Your task to perform on an android device: turn off translation in the chrome app Image 0: 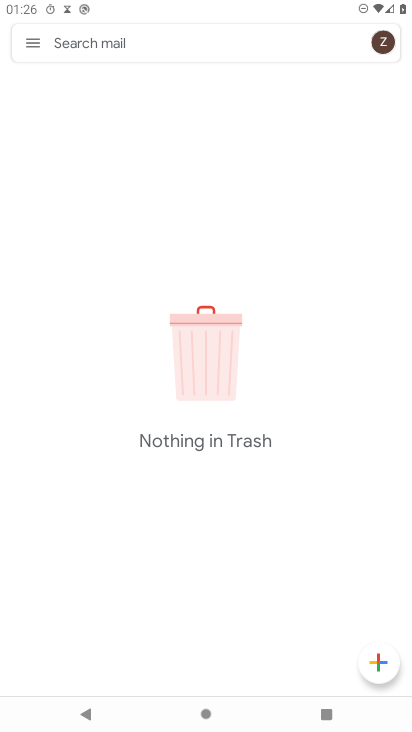
Step 0: press home button
Your task to perform on an android device: turn off translation in the chrome app Image 1: 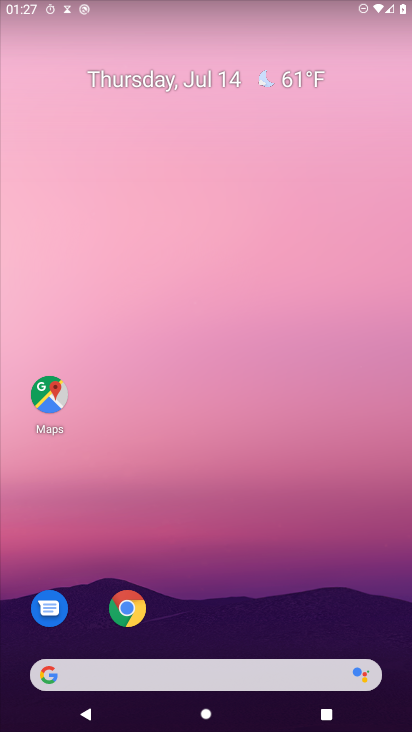
Step 1: click (136, 610)
Your task to perform on an android device: turn off translation in the chrome app Image 2: 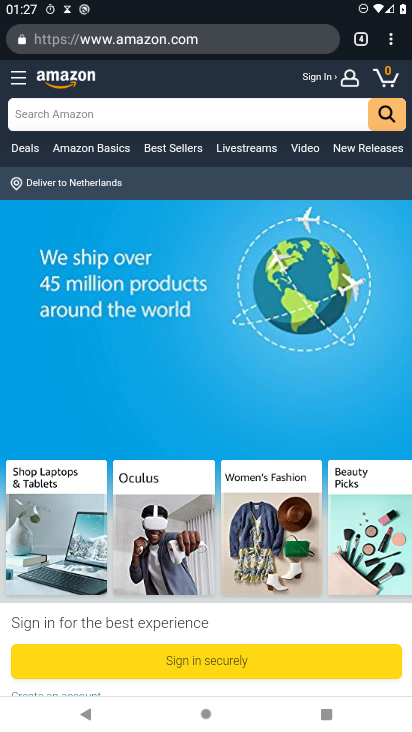
Step 2: click (394, 41)
Your task to perform on an android device: turn off translation in the chrome app Image 3: 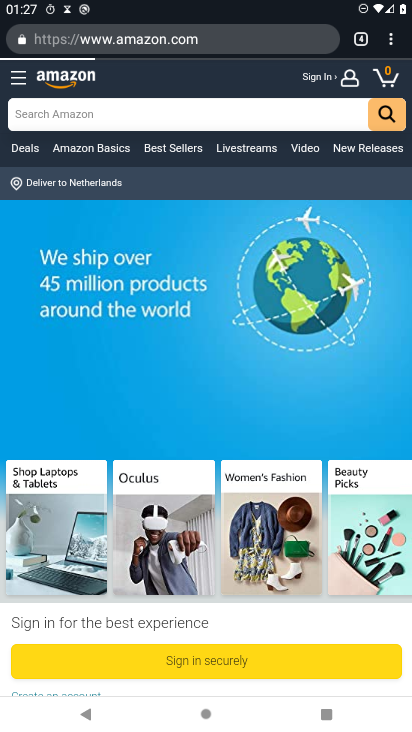
Step 3: drag from (394, 41) to (250, 468)
Your task to perform on an android device: turn off translation in the chrome app Image 4: 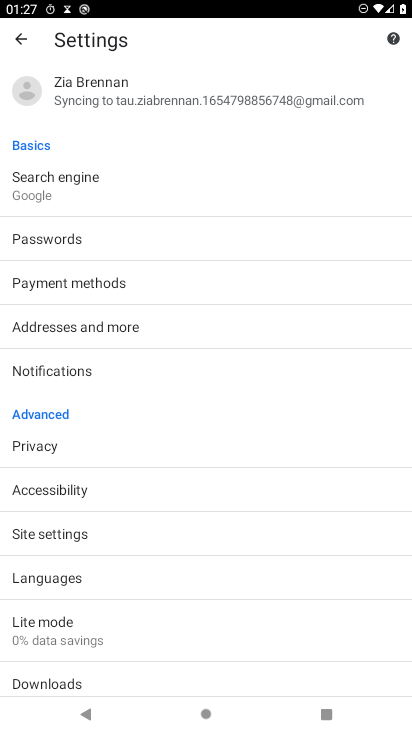
Step 4: click (66, 571)
Your task to perform on an android device: turn off translation in the chrome app Image 5: 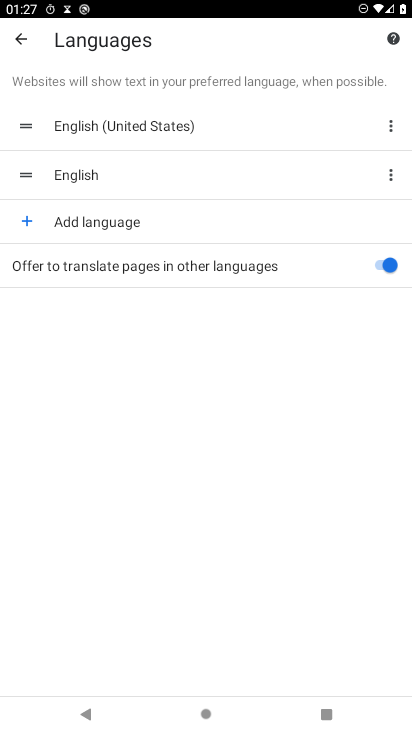
Step 5: click (377, 257)
Your task to perform on an android device: turn off translation in the chrome app Image 6: 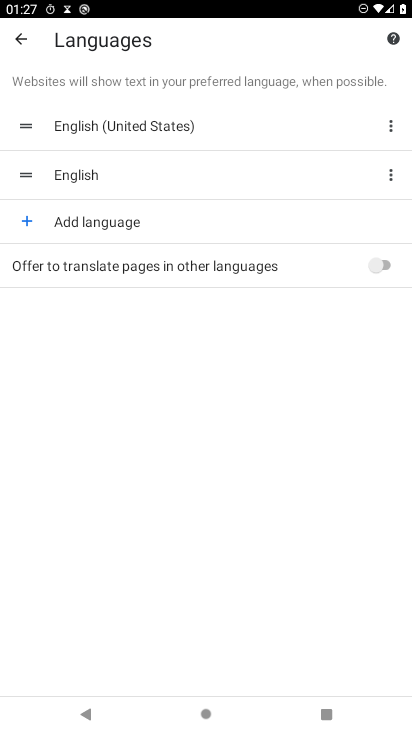
Step 6: task complete